Your task to perform on an android device: Search for Mexican restaurants on Maps Image 0: 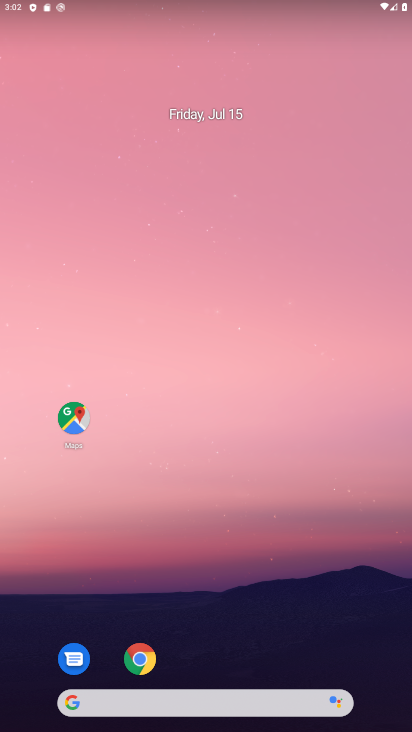
Step 0: click (84, 421)
Your task to perform on an android device: Search for Mexican restaurants on Maps Image 1: 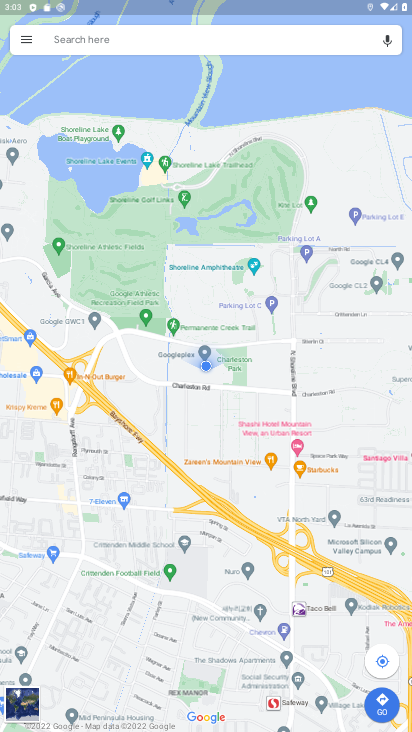
Step 1: click (94, 46)
Your task to perform on an android device: Search for Mexican restaurants on Maps Image 2: 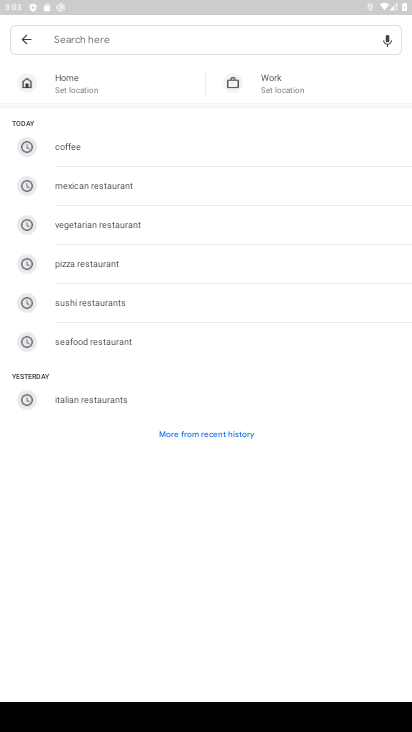
Step 2: click (96, 190)
Your task to perform on an android device: Search for Mexican restaurants on Maps Image 3: 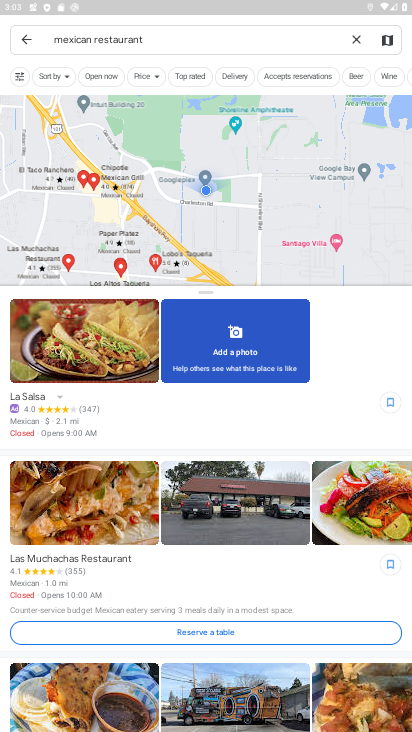
Step 3: task complete